Your task to perform on an android device: turn on wifi Image 0: 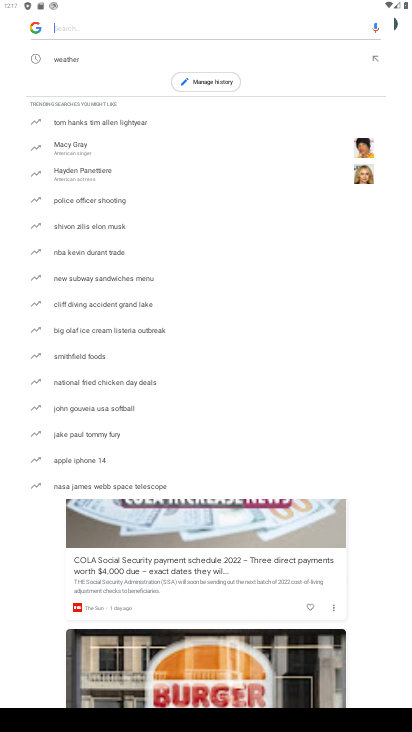
Step 0: drag from (168, 4) to (169, 358)
Your task to perform on an android device: turn on wifi Image 1: 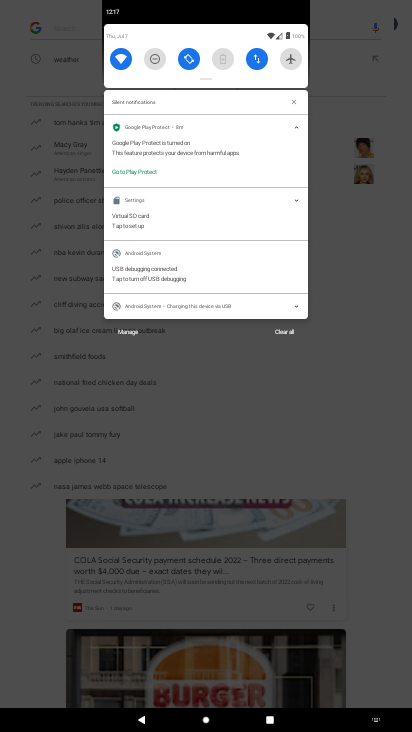
Step 1: task complete